Your task to perform on an android device: turn off data saver in the chrome app Image 0: 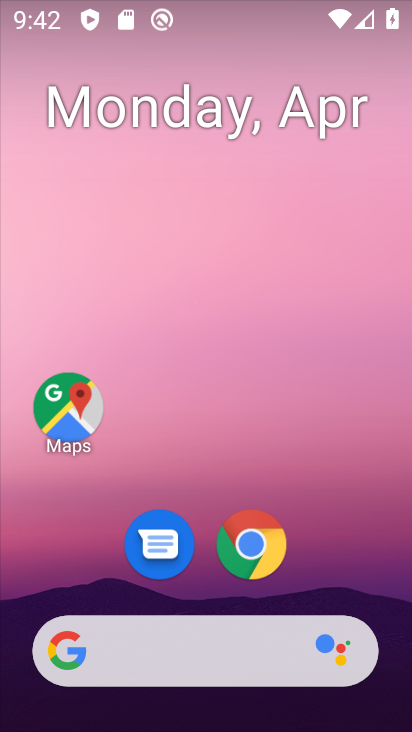
Step 0: click (355, 286)
Your task to perform on an android device: turn off data saver in the chrome app Image 1: 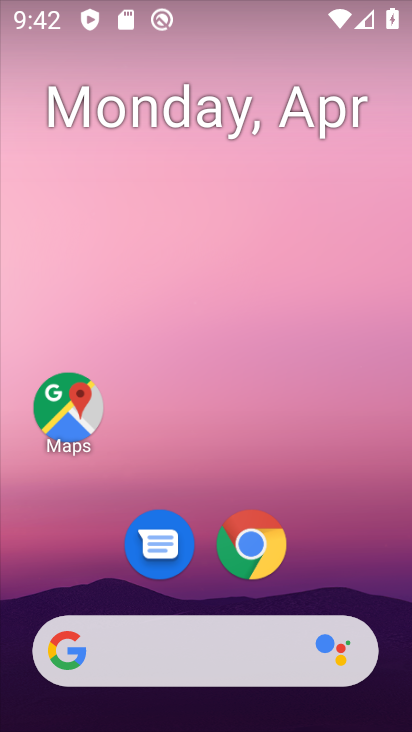
Step 1: drag from (335, 419) to (334, 277)
Your task to perform on an android device: turn off data saver in the chrome app Image 2: 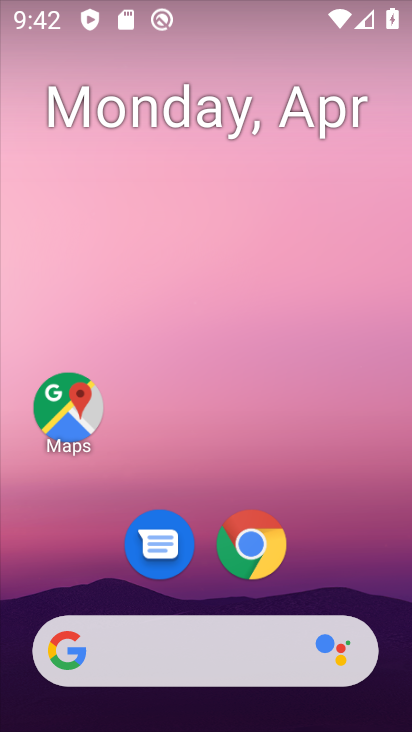
Step 2: drag from (352, 595) to (341, 330)
Your task to perform on an android device: turn off data saver in the chrome app Image 3: 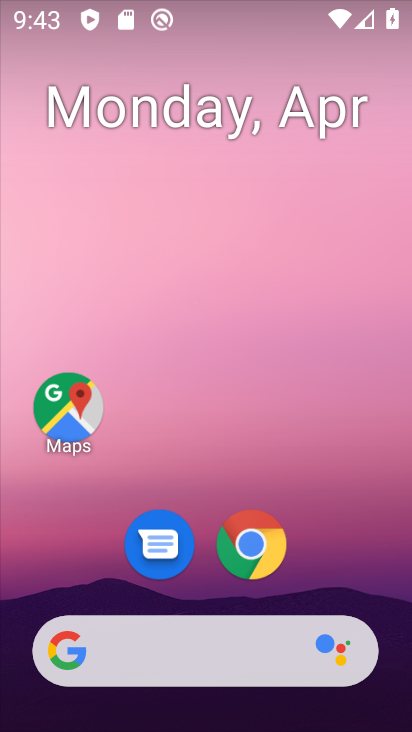
Step 3: drag from (285, 596) to (268, 286)
Your task to perform on an android device: turn off data saver in the chrome app Image 4: 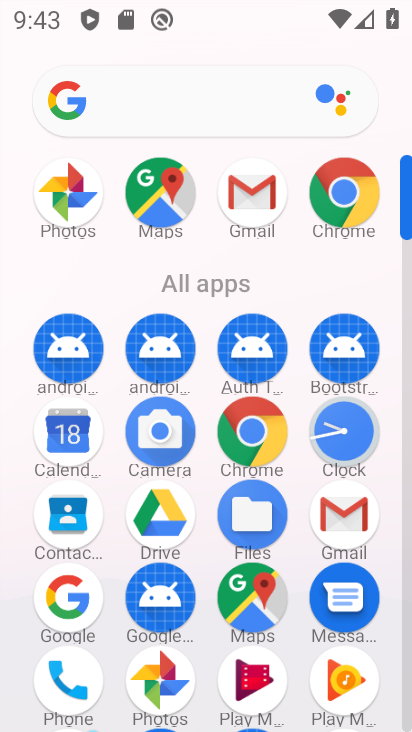
Step 4: click (327, 173)
Your task to perform on an android device: turn off data saver in the chrome app Image 5: 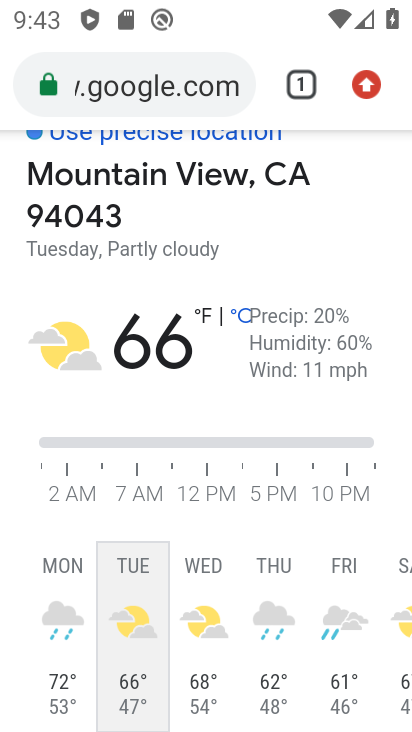
Step 5: click (367, 77)
Your task to perform on an android device: turn off data saver in the chrome app Image 6: 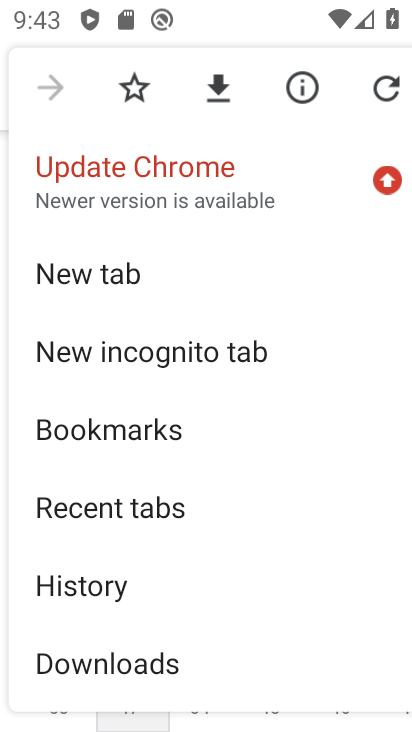
Step 6: drag from (119, 629) to (205, 114)
Your task to perform on an android device: turn off data saver in the chrome app Image 7: 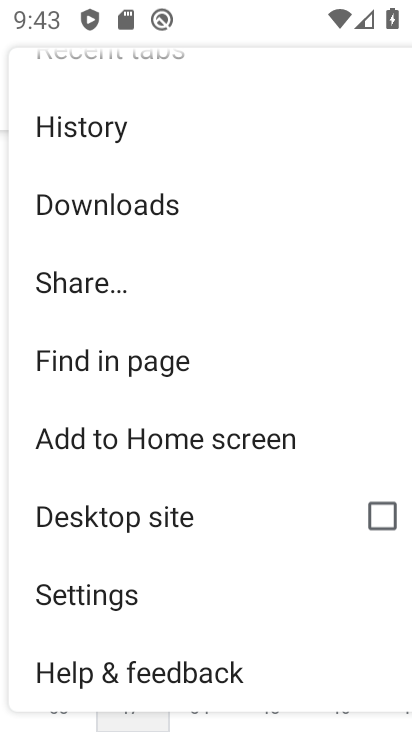
Step 7: click (108, 582)
Your task to perform on an android device: turn off data saver in the chrome app Image 8: 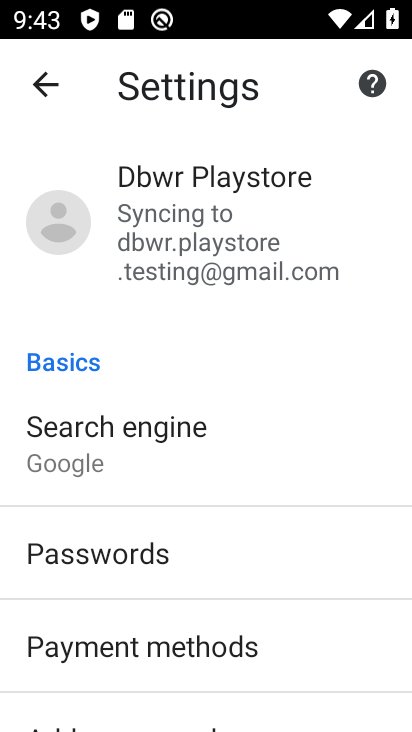
Step 8: drag from (154, 621) to (277, 190)
Your task to perform on an android device: turn off data saver in the chrome app Image 9: 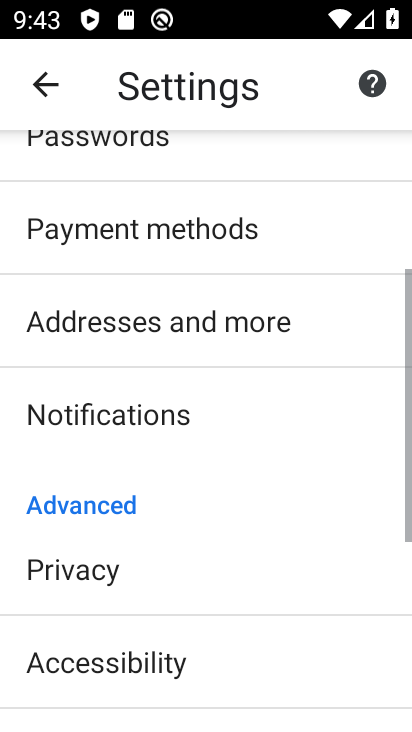
Step 9: drag from (123, 658) to (243, 199)
Your task to perform on an android device: turn off data saver in the chrome app Image 10: 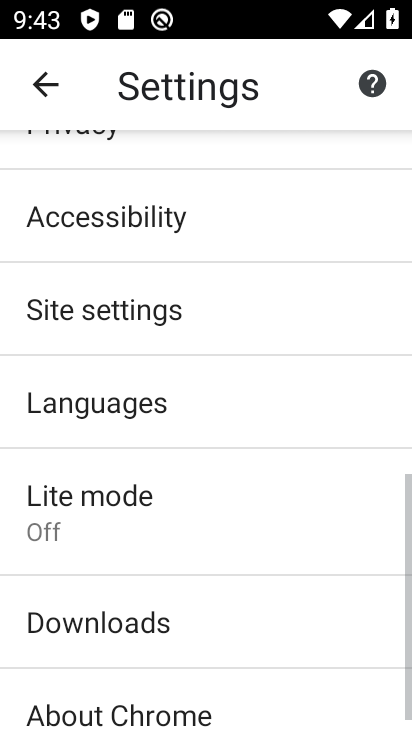
Step 10: click (96, 531)
Your task to perform on an android device: turn off data saver in the chrome app Image 11: 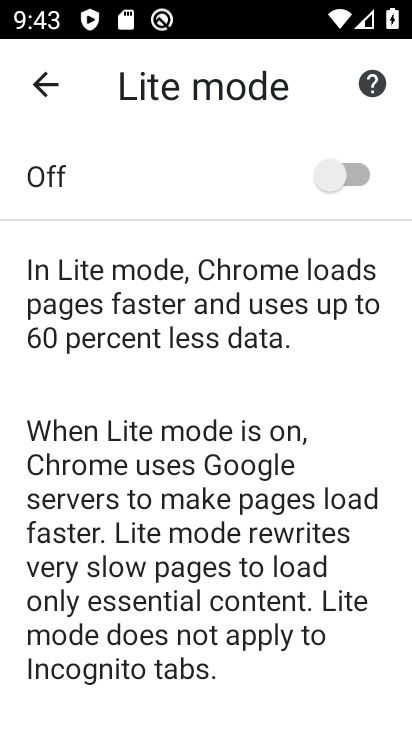
Step 11: task complete